Your task to perform on an android device: check storage Image 0: 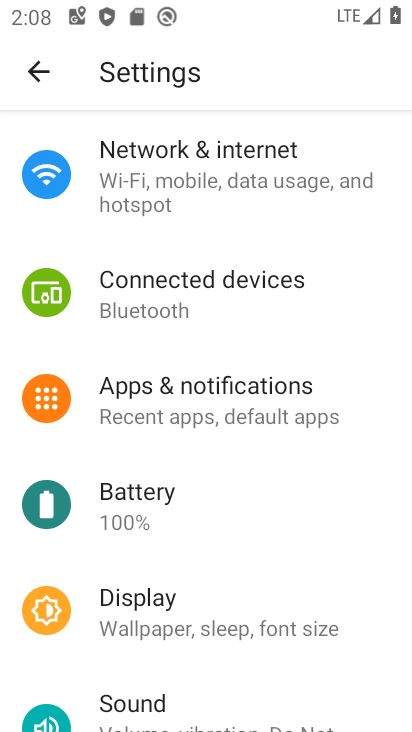
Step 0: drag from (384, 521) to (384, 440)
Your task to perform on an android device: check storage Image 1: 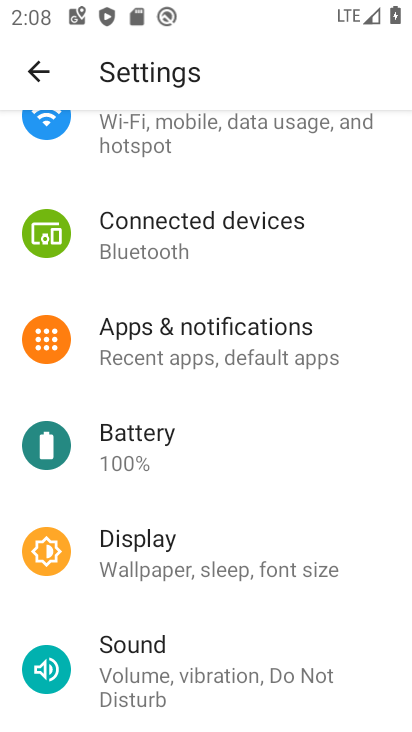
Step 1: drag from (372, 531) to (372, 432)
Your task to perform on an android device: check storage Image 2: 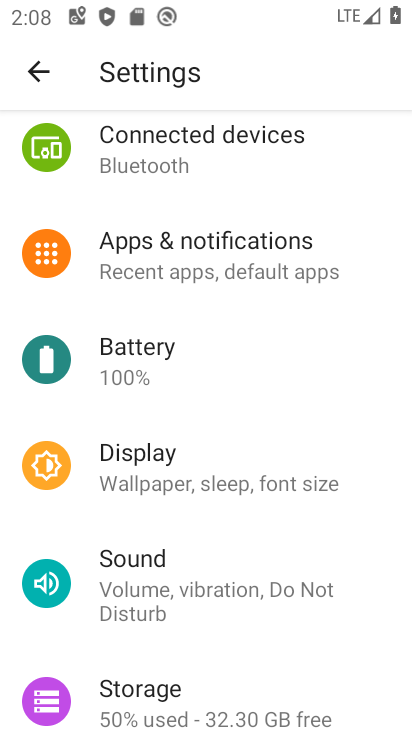
Step 2: drag from (368, 536) to (371, 436)
Your task to perform on an android device: check storage Image 3: 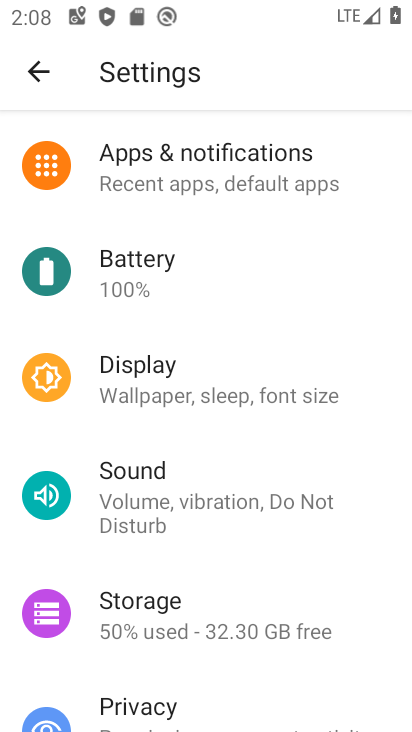
Step 3: drag from (374, 546) to (380, 454)
Your task to perform on an android device: check storage Image 4: 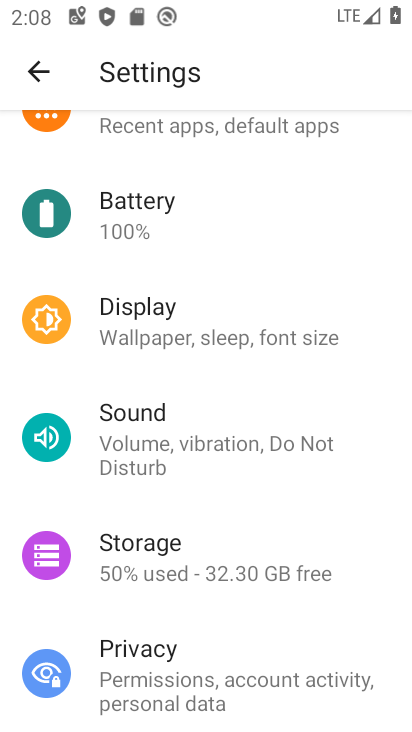
Step 4: drag from (375, 561) to (376, 461)
Your task to perform on an android device: check storage Image 5: 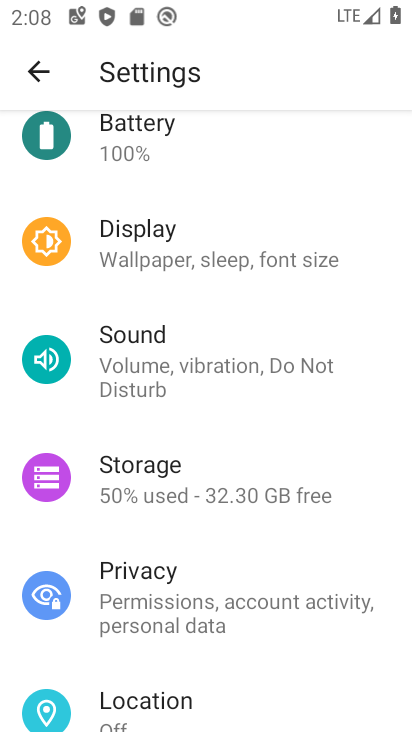
Step 5: drag from (369, 554) to (372, 446)
Your task to perform on an android device: check storage Image 6: 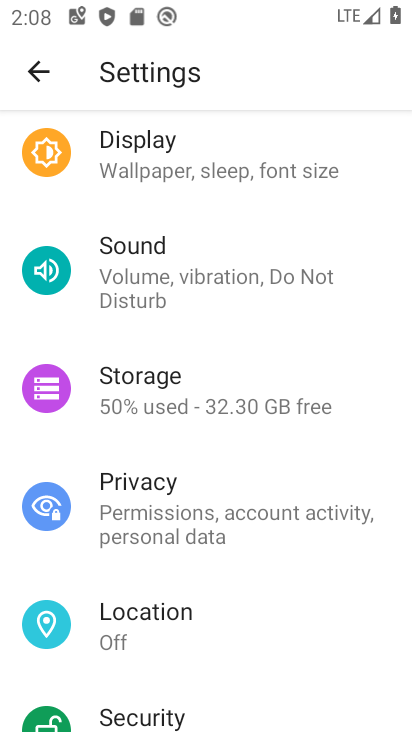
Step 6: drag from (354, 589) to (359, 473)
Your task to perform on an android device: check storage Image 7: 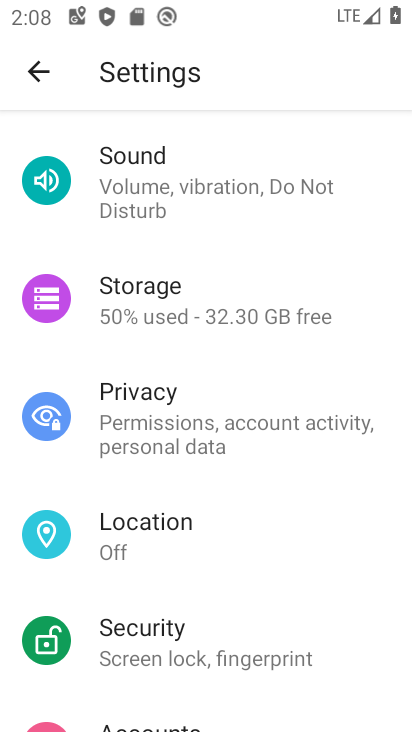
Step 7: click (280, 349)
Your task to perform on an android device: check storage Image 8: 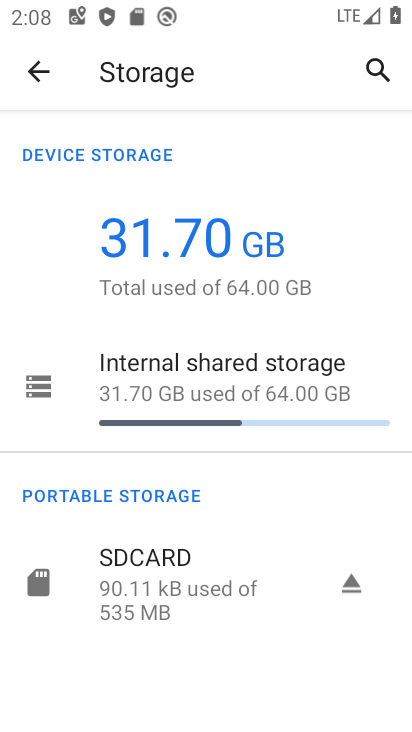
Step 8: task complete